Your task to perform on an android device: Open Google Maps Image 0: 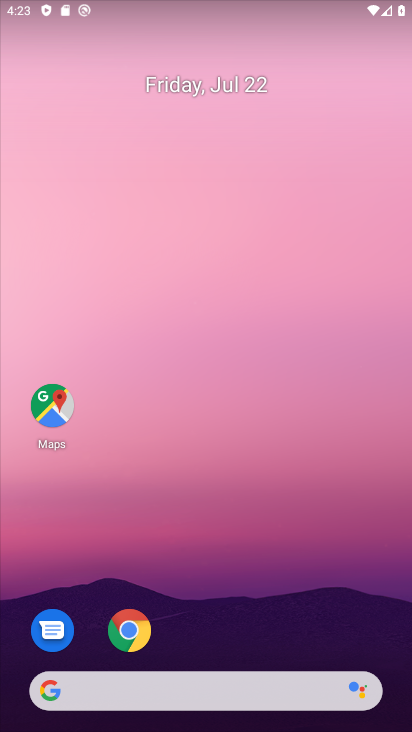
Step 0: click (51, 408)
Your task to perform on an android device: Open Google Maps Image 1: 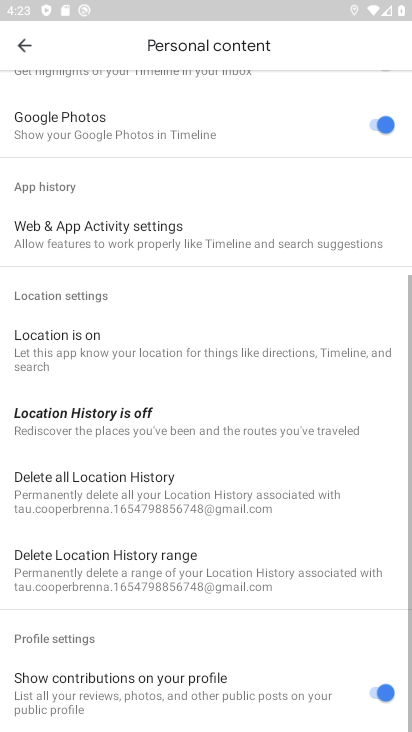
Step 1: task complete